Your task to perform on an android device: Clear all items from cart on costco. Image 0: 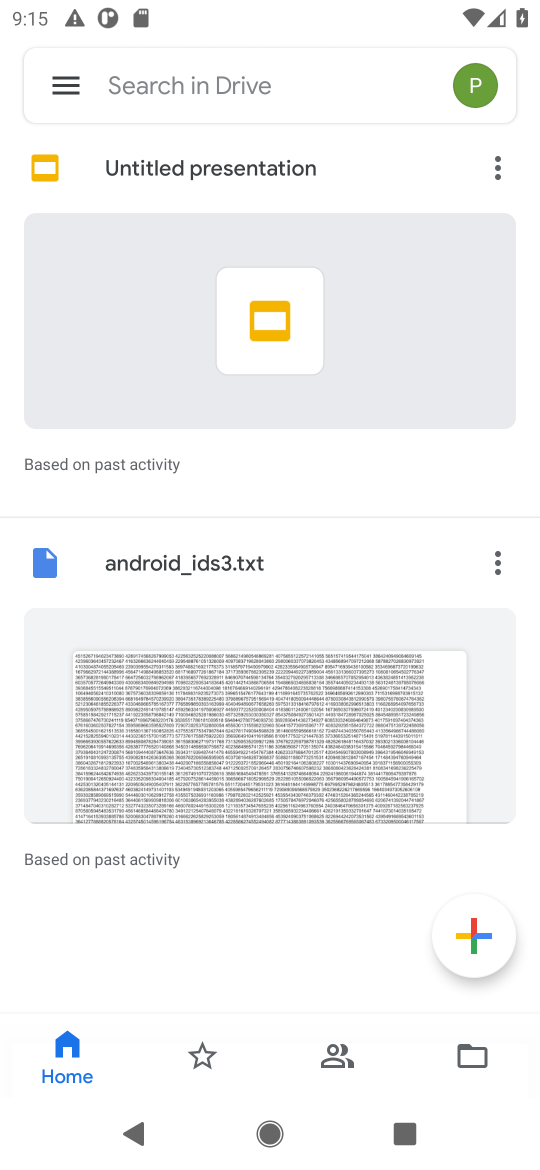
Step 0: press home button
Your task to perform on an android device: Clear all items from cart on costco. Image 1: 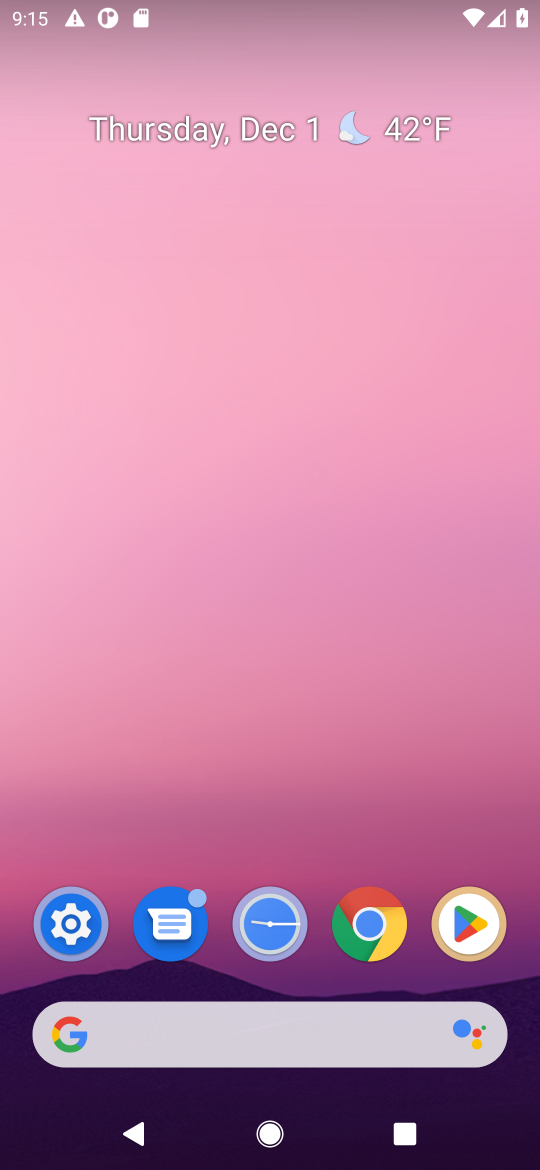
Step 1: click (290, 1016)
Your task to perform on an android device: Clear all items from cart on costco. Image 2: 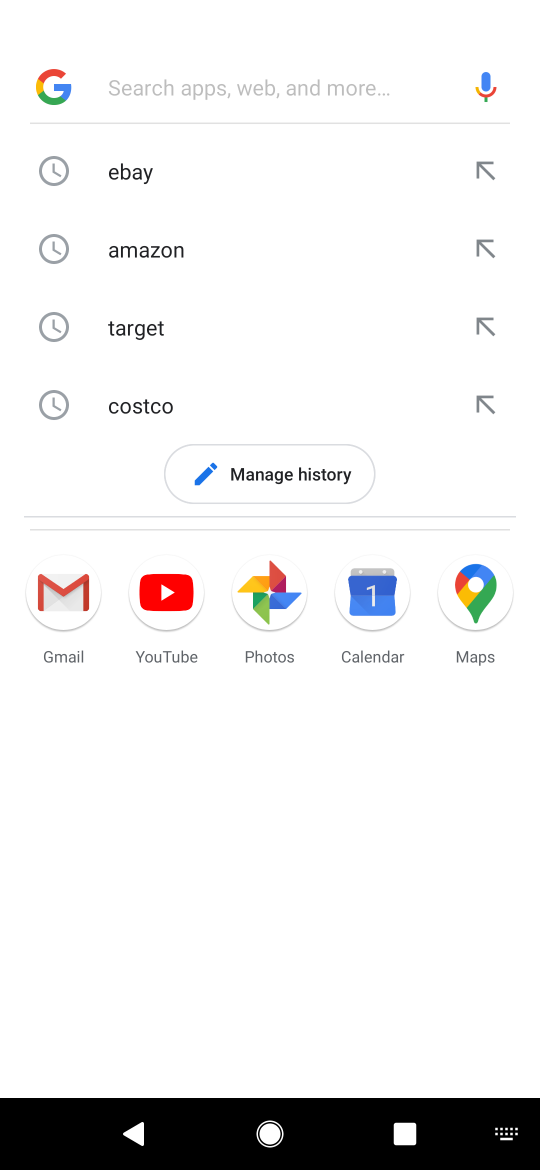
Step 2: type "costco"
Your task to perform on an android device: Clear all items from cart on costco. Image 3: 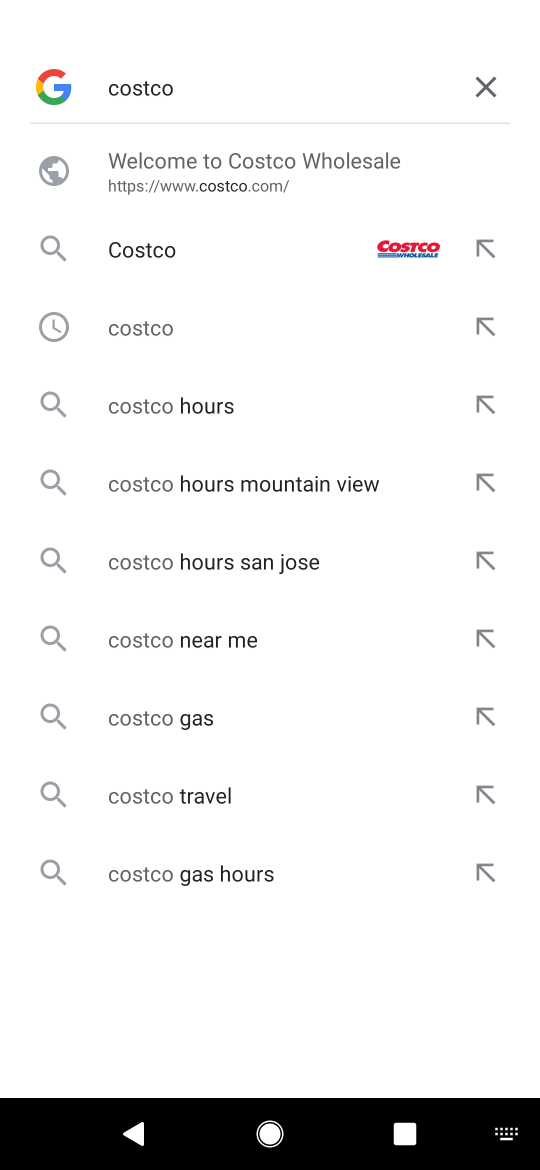
Step 3: click (127, 197)
Your task to perform on an android device: Clear all items from cart on costco. Image 4: 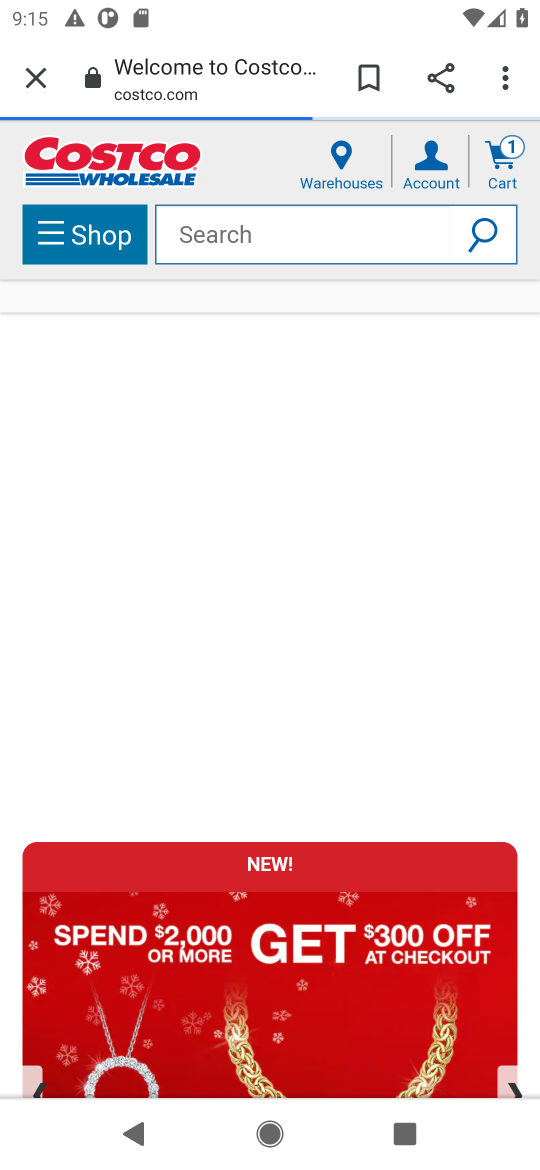
Step 4: click (237, 248)
Your task to perform on an android device: Clear all items from cart on costco. Image 5: 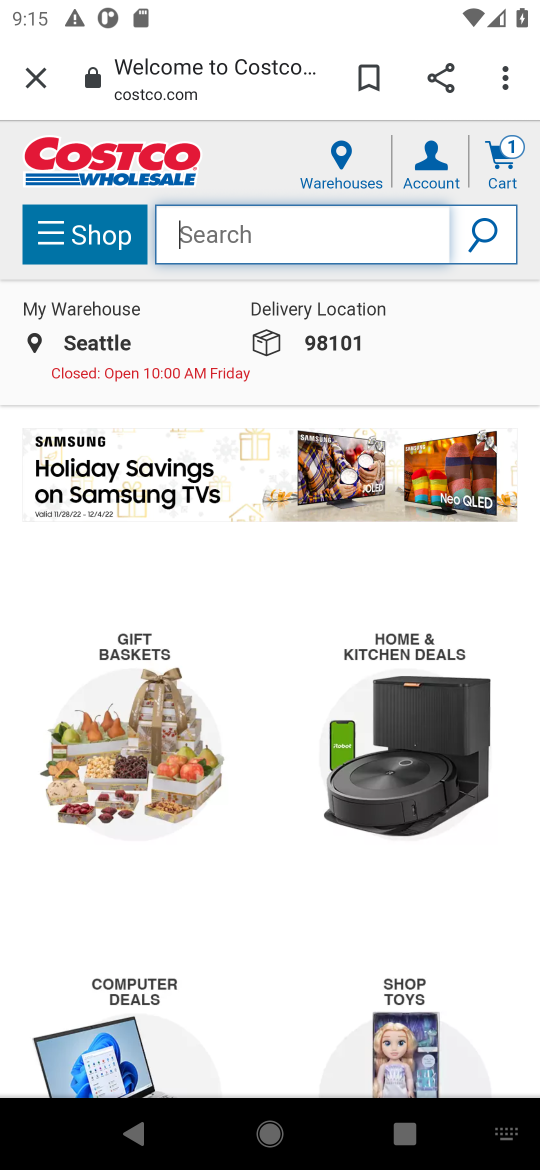
Step 5: click (506, 180)
Your task to perform on an android device: Clear all items from cart on costco. Image 6: 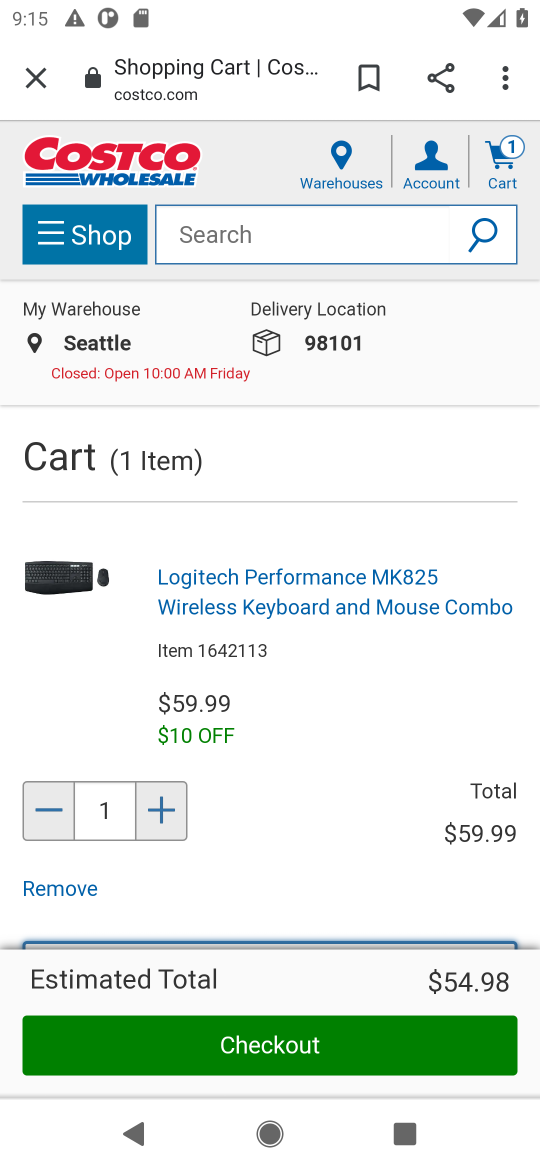
Step 6: click (46, 796)
Your task to perform on an android device: Clear all items from cart on costco. Image 7: 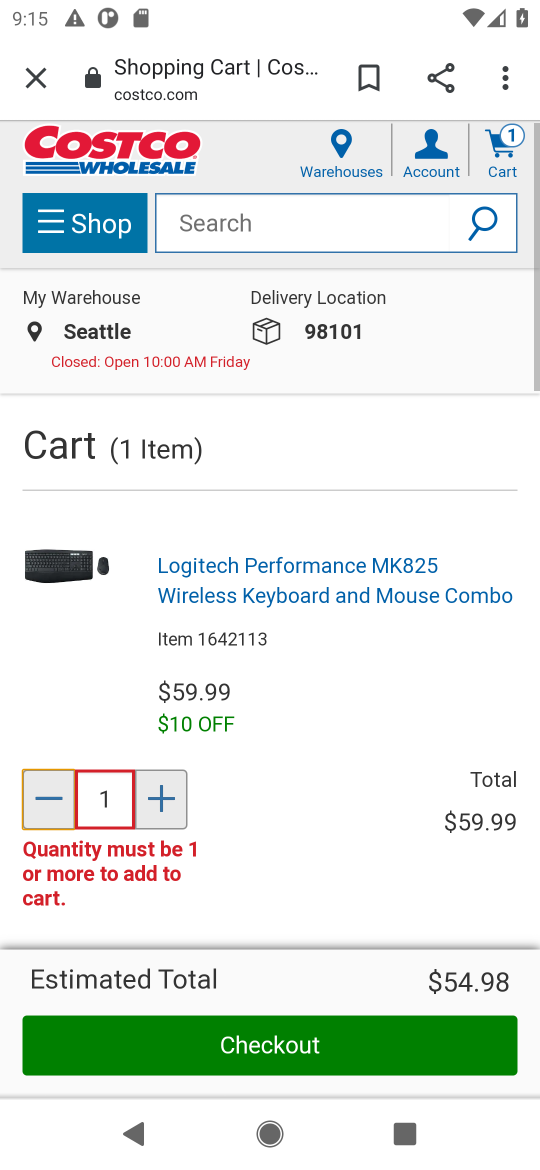
Step 7: task complete